Your task to perform on an android device: change alarm snooze length Image 0: 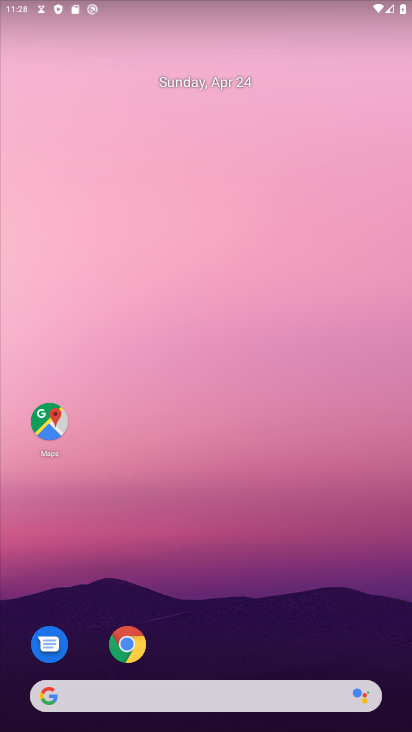
Step 0: drag from (356, 648) to (372, 60)
Your task to perform on an android device: change alarm snooze length Image 1: 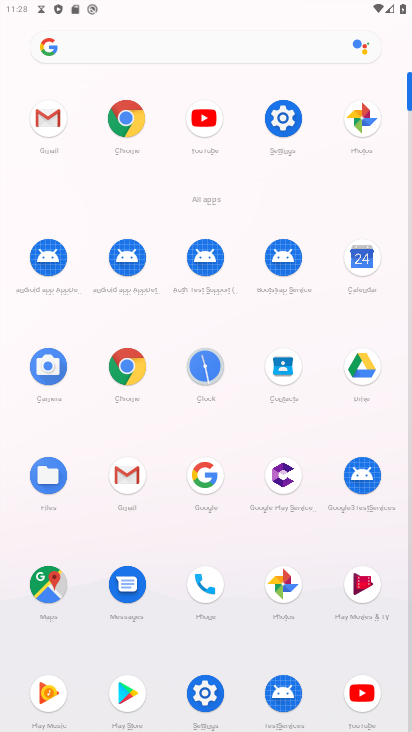
Step 1: click (205, 373)
Your task to perform on an android device: change alarm snooze length Image 2: 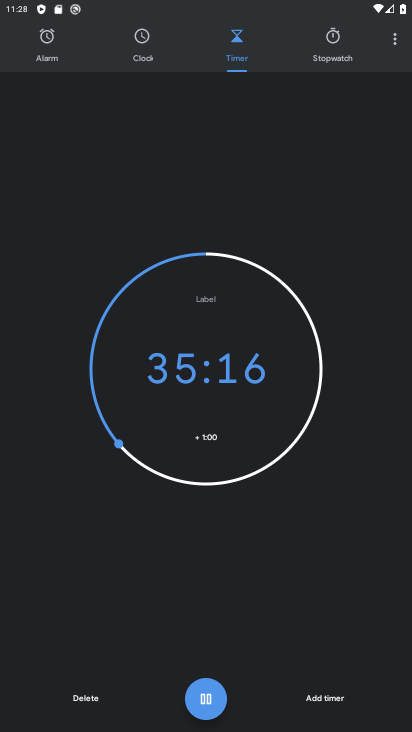
Step 2: click (397, 44)
Your task to perform on an android device: change alarm snooze length Image 3: 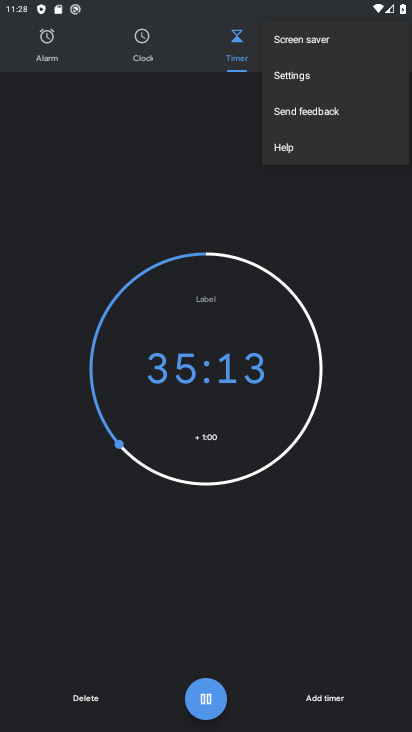
Step 3: click (286, 82)
Your task to perform on an android device: change alarm snooze length Image 4: 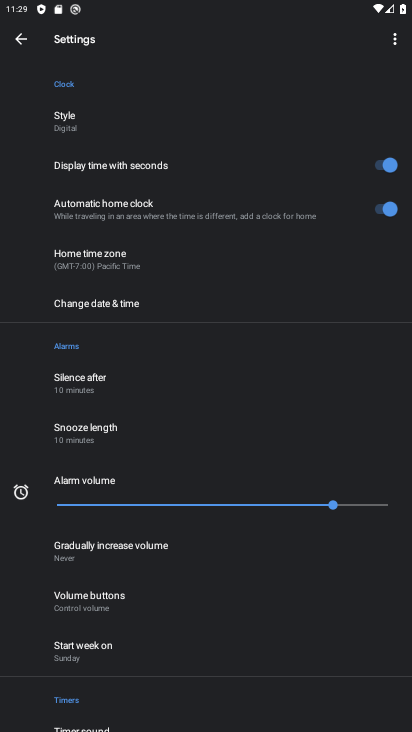
Step 4: click (65, 439)
Your task to perform on an android device: change alarm snooze length Image 5: 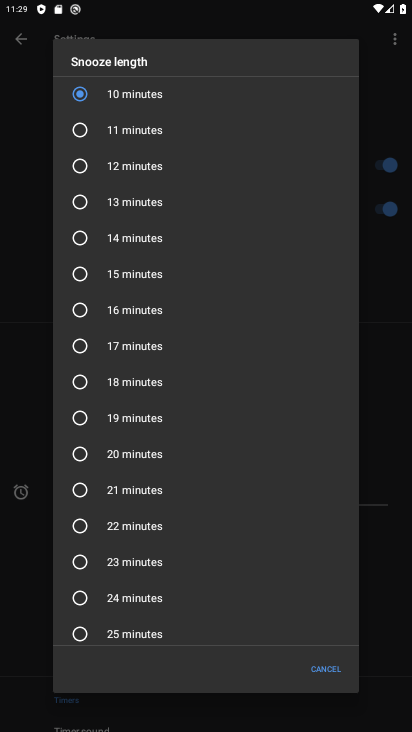
Step 5: click (76, 205)
Your task to perform on an android device: change alarm snooze length Image 6: 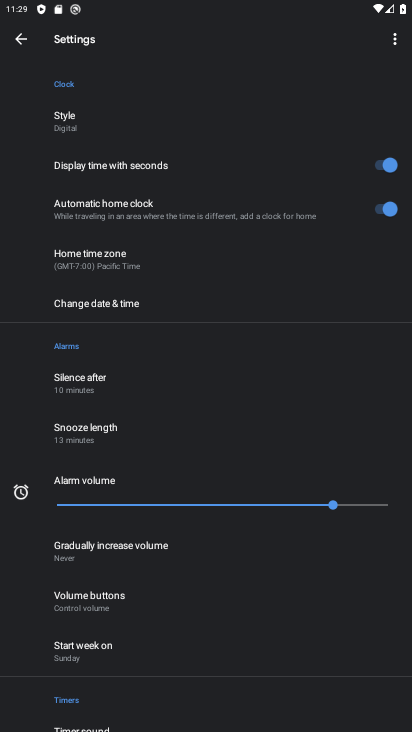
Step 6: task complete